Your task to perform on an android device: Go to network settings Image 0: 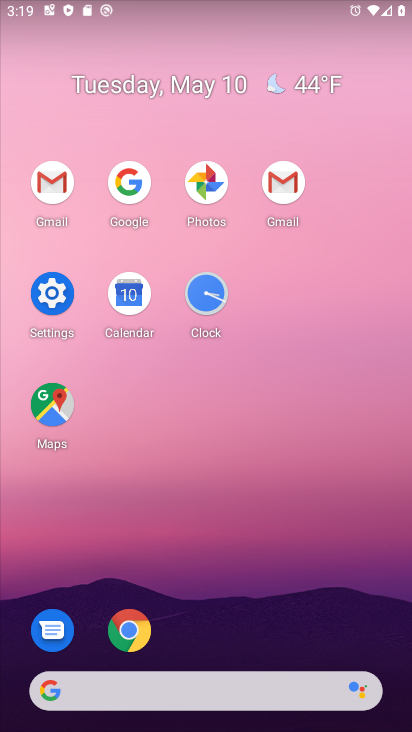
Step 0: click (50, 301)
Your task to perform on an android device: Go to network settings Image 1: 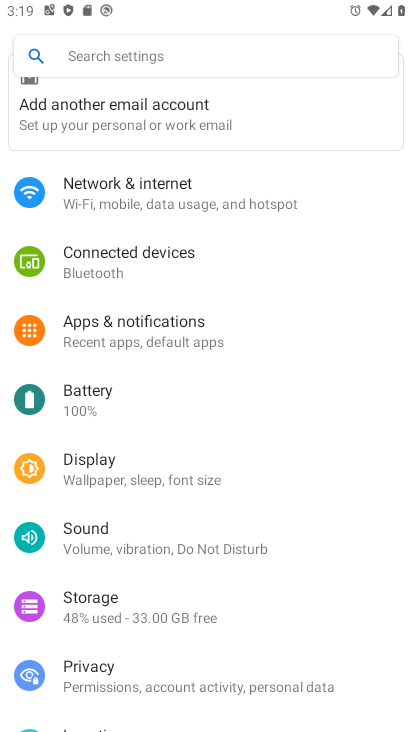
Step 1: click (235, 191)
Your task to perform on an android device: Go to network settings Image 2: 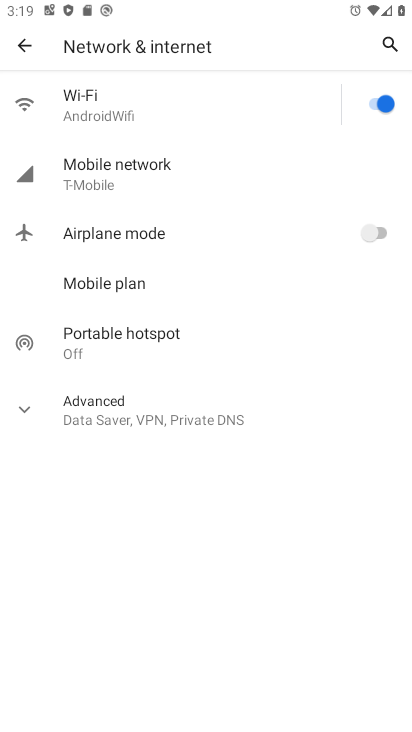
Step 2: click (137, 167)
Your task to perform on an android device: Go to network settings Image 3: 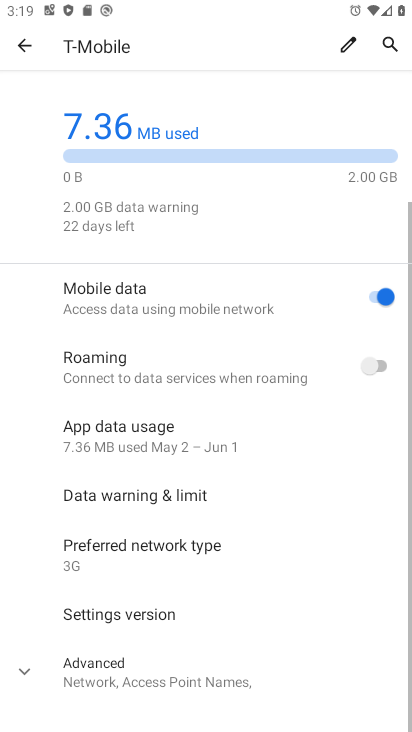
Step 3: task complete